Your task to perform on an android device: turn off smart reply in the gmail app Image 0: 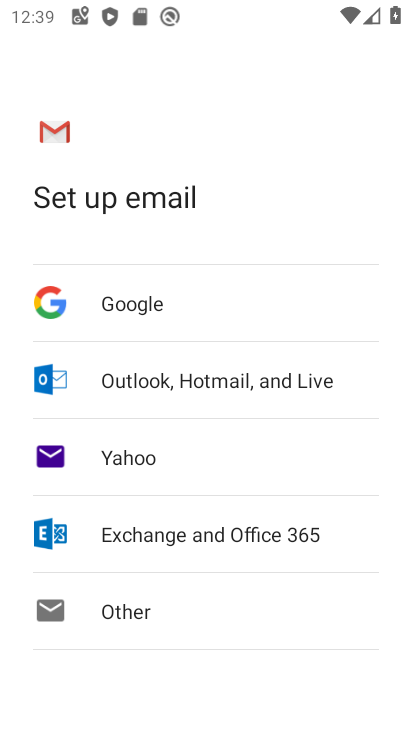
Step 0: press home button
Your task to perform on an android device: turn off smart reply in the gmail app Image 1: 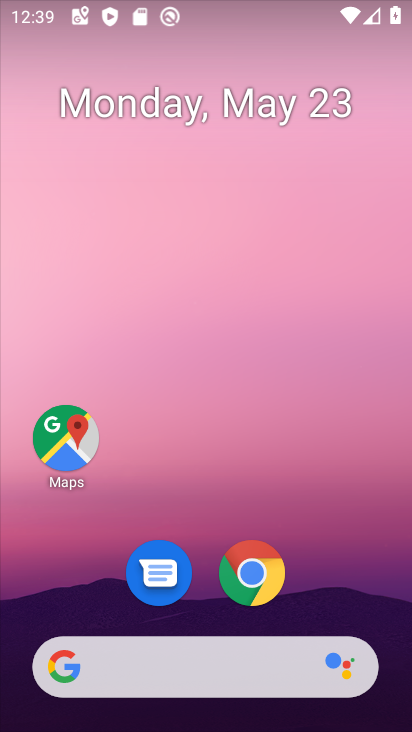
Step 1: drag from (294, 424) to (254, 59)
Your task to perform on an android device: turn off smart reply in the gmail app Image 2: 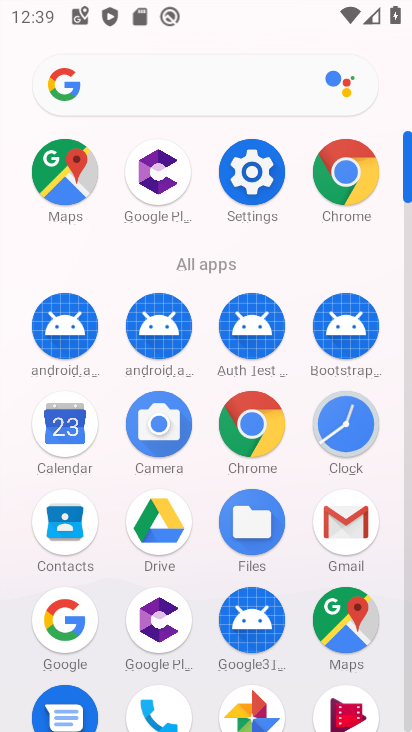
Step 2: click (344, 530)
Your task to perform on an android device: turn off smart reply in the gmail app Image 3: 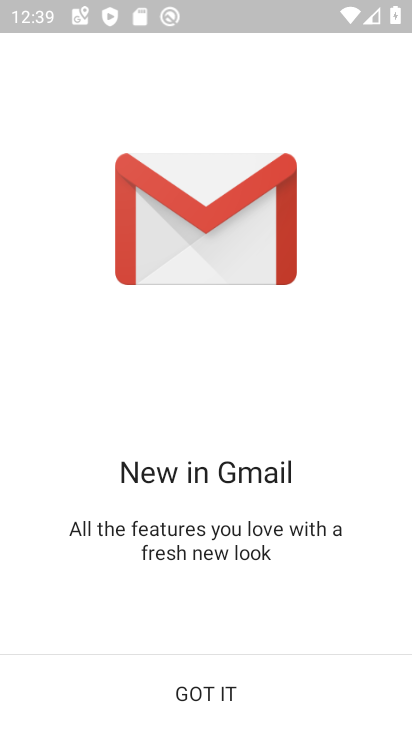
Step 3: click (319, 685)
Your task to perform on an android device: turn off smart reply in the gmail app Image 4: 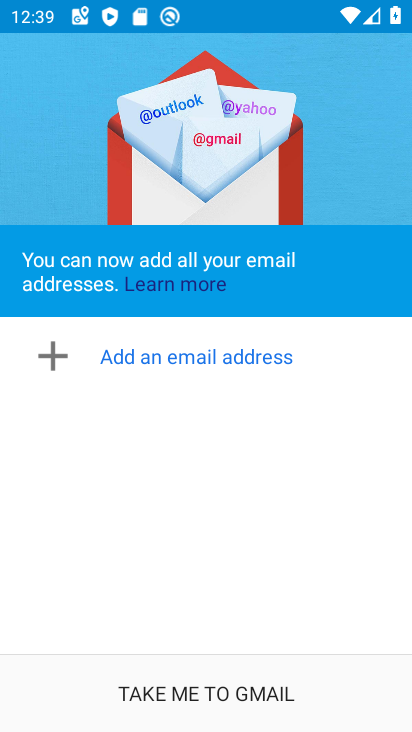
Step 4: click (299, 690)
Your task to perform on an android device: turn off smart reply in the gmail app Image 5: 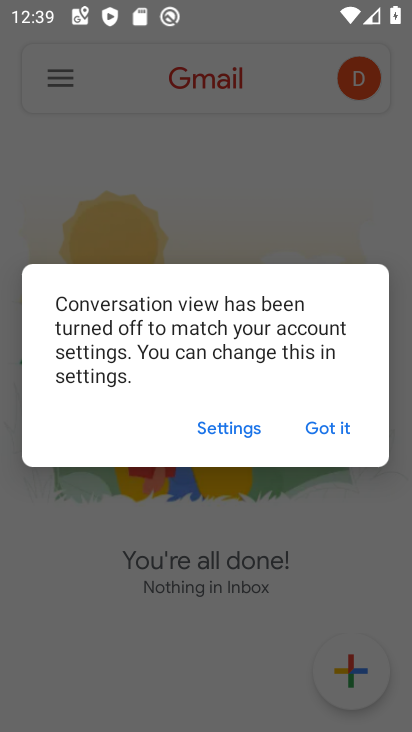
Step 5: click (311, 425)
Your task to perform on an android device: turn off smart reply in the gmail app Image 6: 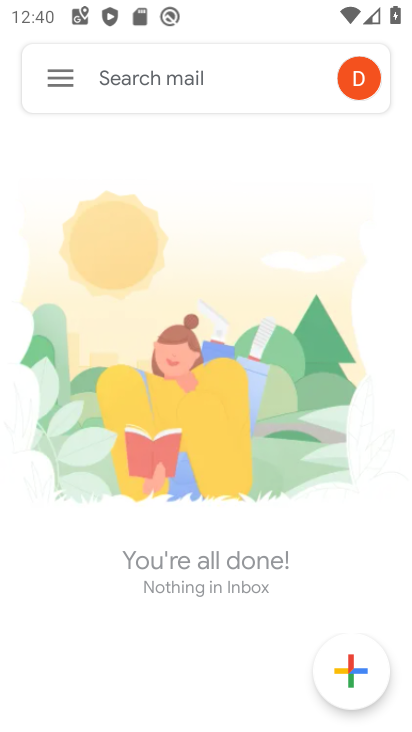
Step 6: click (58, 70)
Your task to perform on an android device: turn off smart reply in the gmail app Image 7: 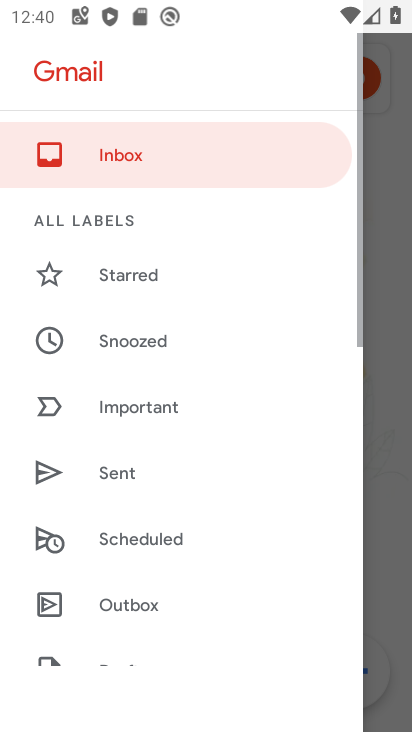
Step 7: drag from (255, 662) to (278, 34)
Your task to perform on an android device: turn off smart reply in the gmail app Image 8: 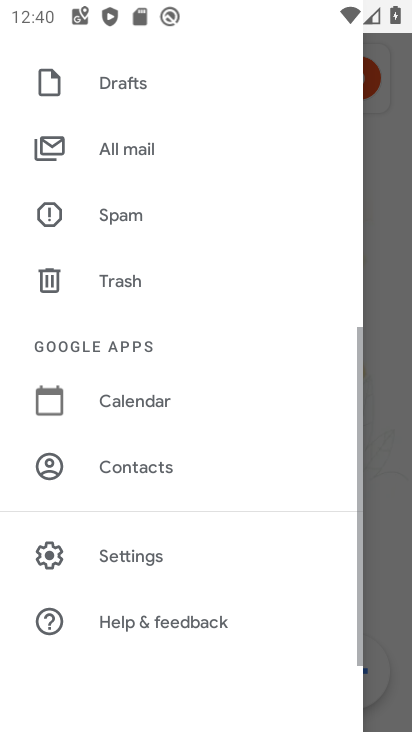
Step 8: click (207, 544)
Your task to perform on an android device: turn off smart reply in the gmail app Image 9: 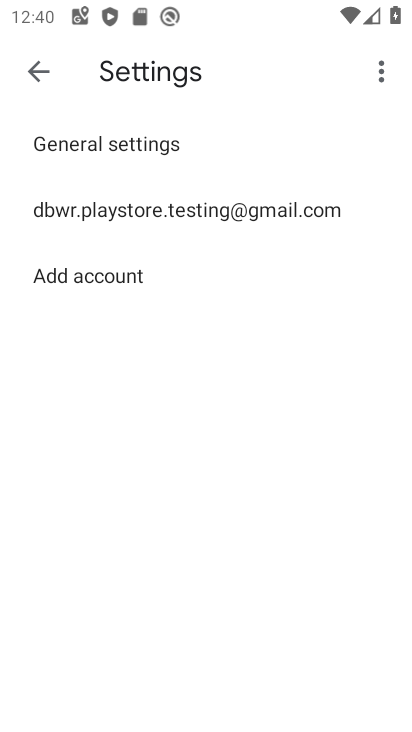
Step 9: click (189, 210)
Your task to perform on an android device: turn off smart reply in the gmail app Image 10: 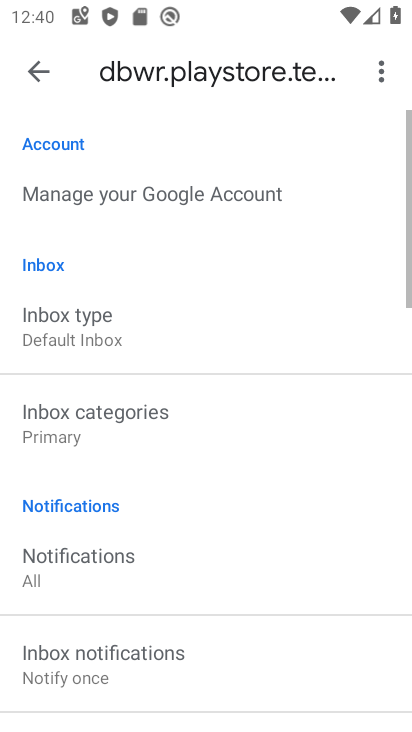
Step 10: drag from (208, 574) to (227, 75)
Your task to perform on an android device: turn off smart reply in the gmail app Image 11: 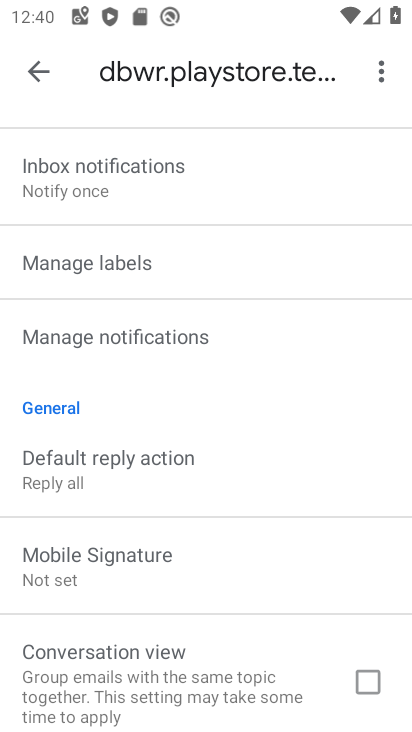
Step 11: drag from (192, 660) to (208, 186)
Your task to perform on an android device: turn off smart reply in the gmail app Image 12: 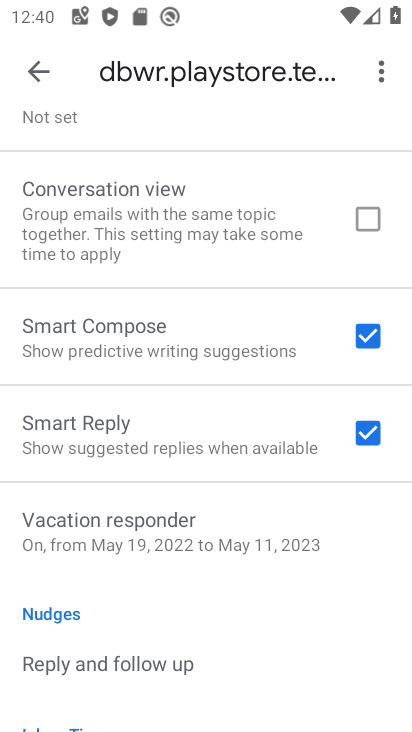
Step 12: click (370, 431)
Your task to perform on an android device: turn off smart reply in the gmail app Image 13: 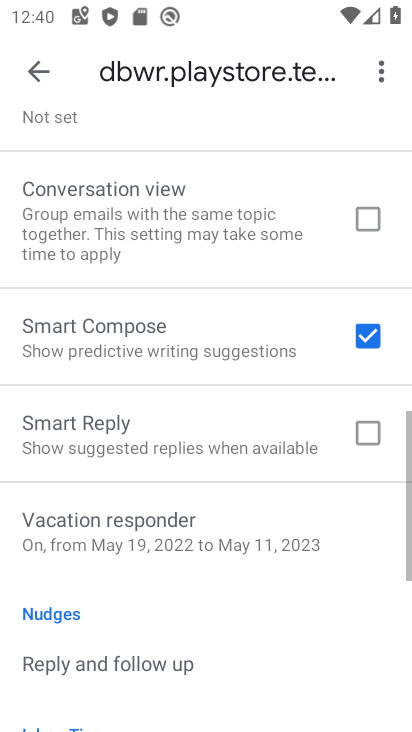
Step 13: task complete